Your task to perform on an android device: Open notification settings Image 0: 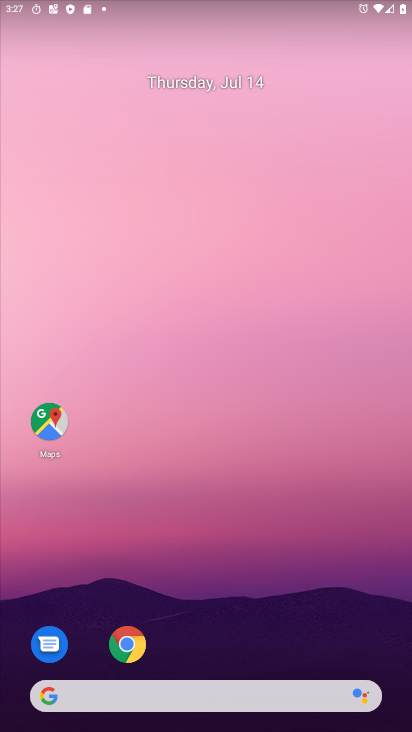
Step 0: drag from (53, 666) to (303, 14)
Your task to perform on an android device: Open notification settings Image 1: 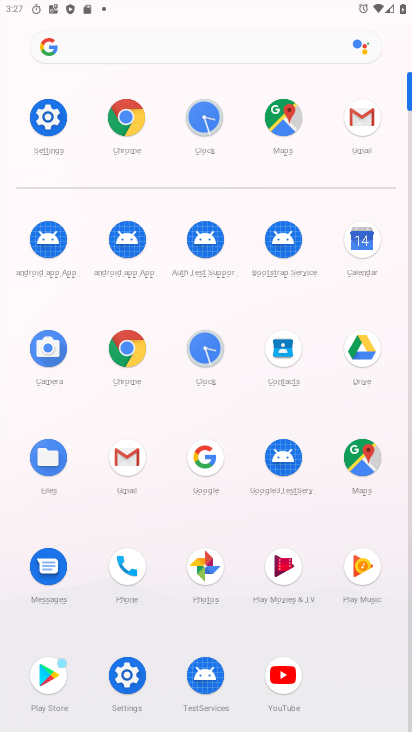
Step 1: click (136, 697)
Your task to perform on an android device: Open notification settings Image 2: 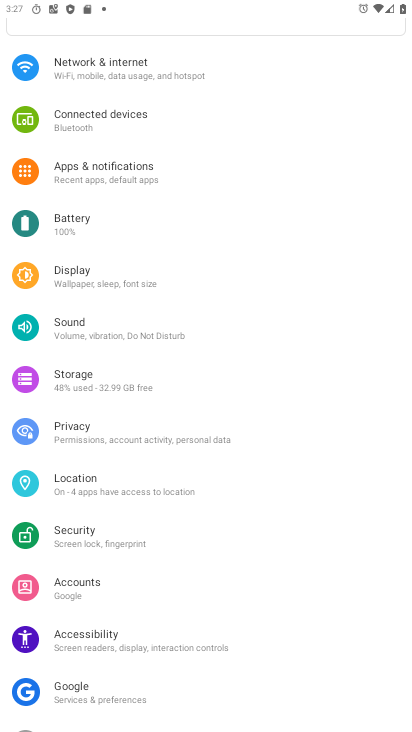
Step 2: click (98, 177)
Your task to perform on an android device: Open notification settings Image 3: 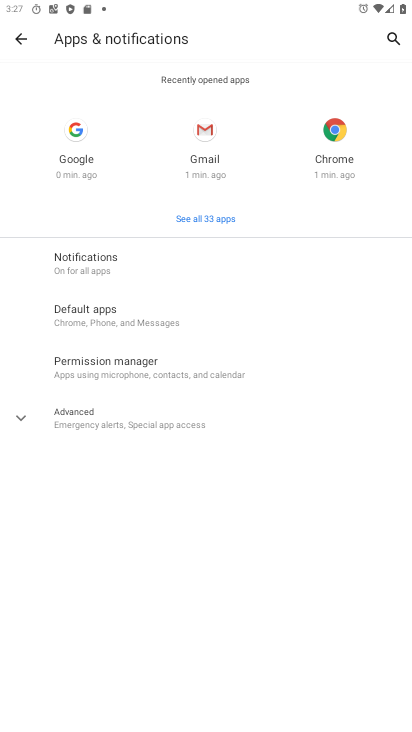
Step 3: task complete